Your task to perform on an android device: install app "Adobe Acrobat Reader: Edit PDF" Image 0: 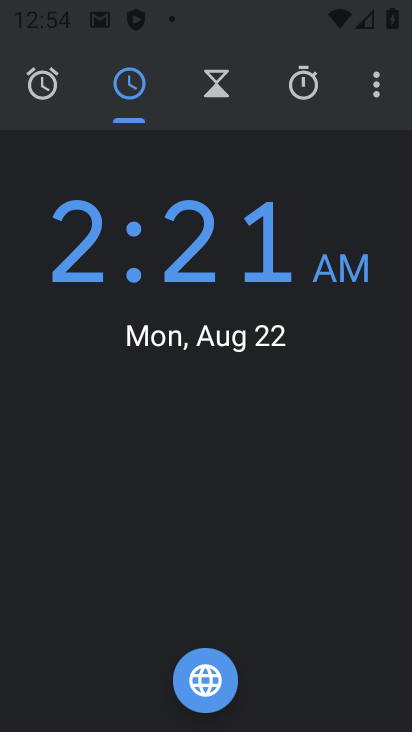
Step 0: press home button
Your task to perform on an android device: install app "Adobe Acrobat Reader: Edit PDF" Image 1: 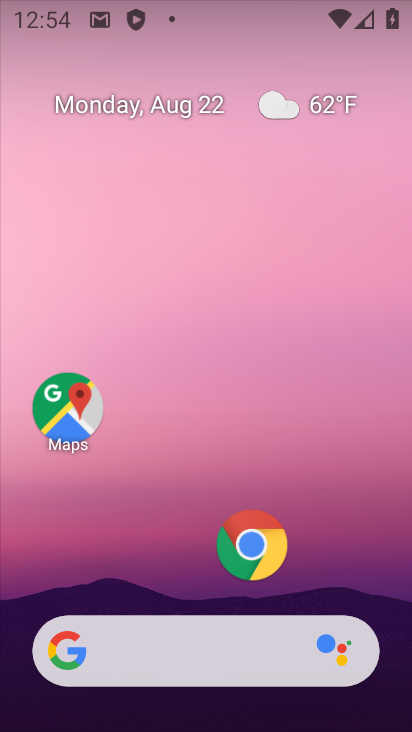
Step 1: drag from (112, 616) to (209, 2)
Your task to perform on an android device: install app "Adobe Acrobat Reader: Edit PDF" Image 2: 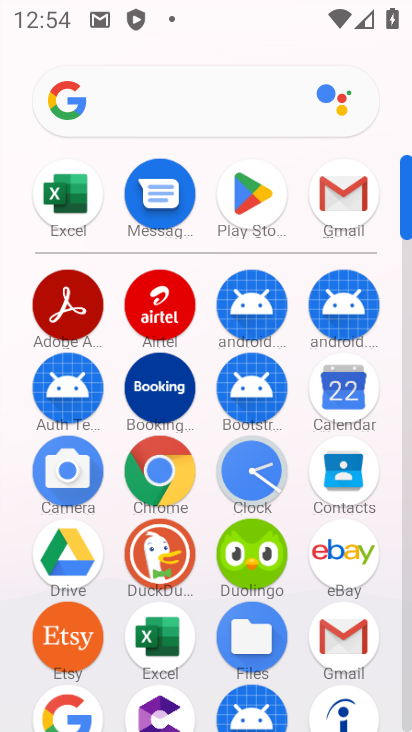
Step 2: click (263, 183)
Your task to perform on an android device: install app "Adobe Acrobat Reader: Edit PDF" Image 3: 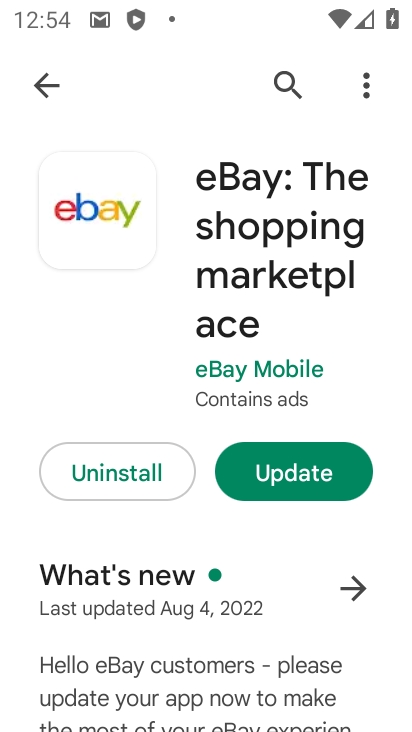
Step 3: click (282, 71)
Your task to perform on an android device: install app "Adobe Acrobat Reader: Edit PDF" Image 4: 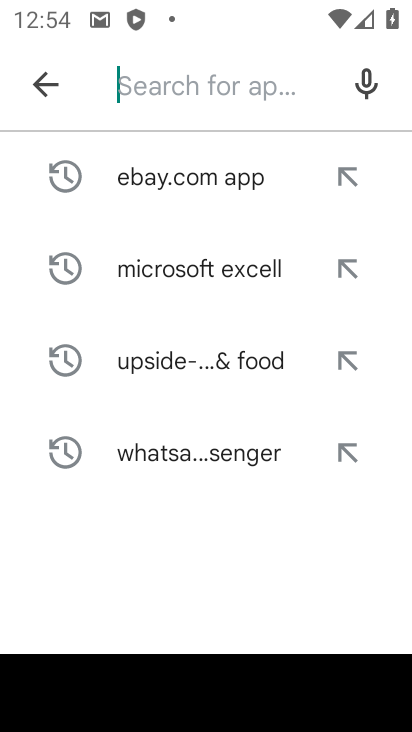
Step 4: click (169, 98)
Your task to perform on an android device: install app "Adobe Acrobat Reader: Edit PDF" Image 5: 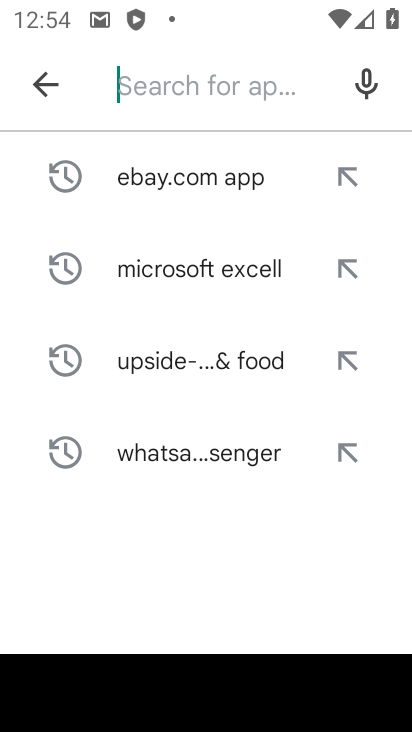
Step 5: click (160, 91)
Your task to perform on an android device: install app "Adobe Acrobat Reader: Edit PDF" Image 6: 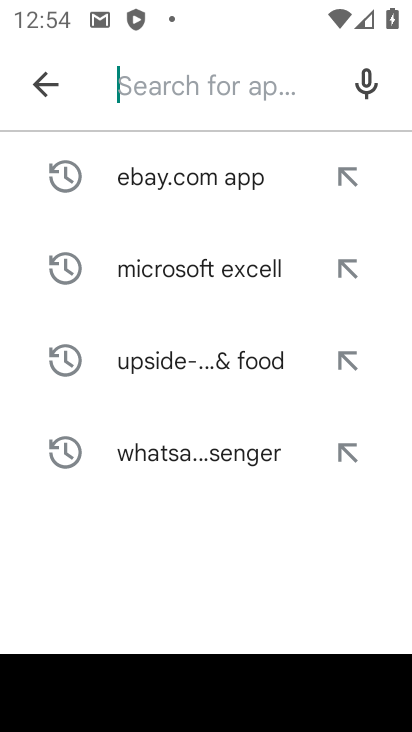
Step 6: type "Adobe Acrobat Reader"
Your task to perform on an android device: install app "Adobe Acrobat Reader: Edit PDF" Image 7: 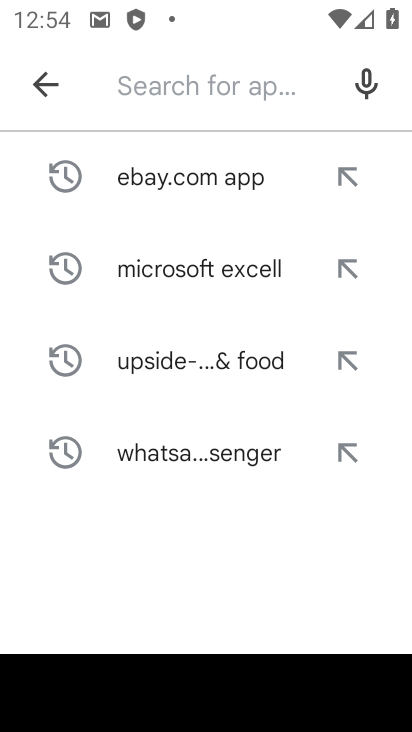
Step 7: click (161, 601)
Your task to perform on an android device: install app "Adobe Acrobat Reader: Edit PDF" Image 8: 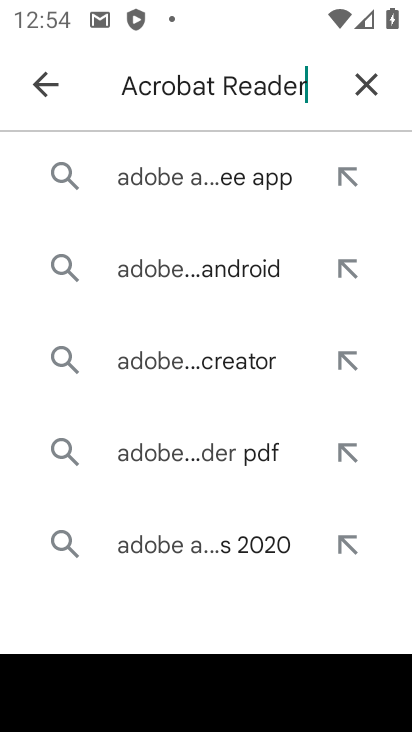
Step 8: click (183, 179)
Your task to perform on an android device: install app "Adobe Acrobat Reader: Edit PDF" Image 9: 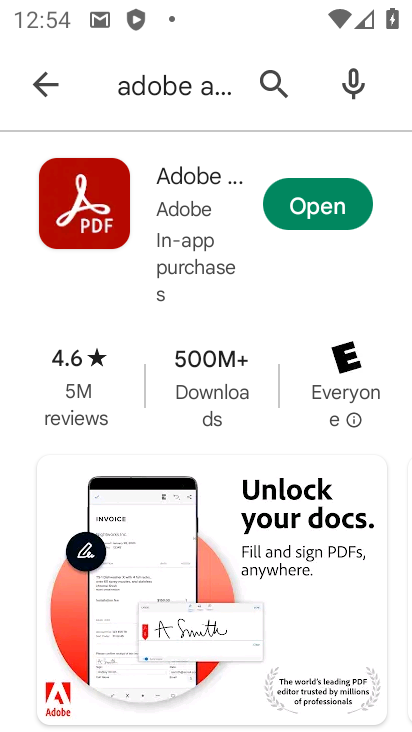
Step 9: click (299, 215)
Your task to perform on an android device: install app "Adobe Acrobat Reader: Edit PDF" Image 10: 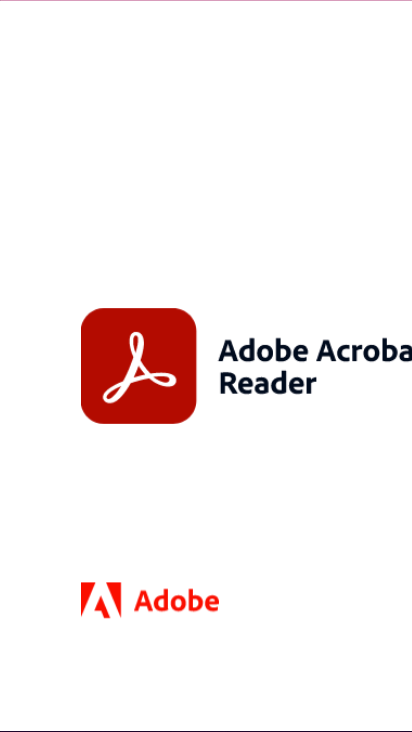
Step 10: task complete